Your task to perform on an android device: Find coffee shops on Maps Image 0: 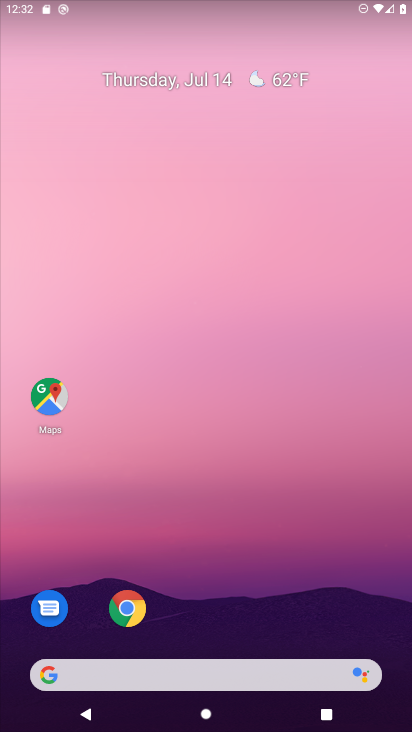
Step 0: drag from (231, 725) to (233, 127)
Your task to perform on an android device: Find coffee shops on Maps Image 1: 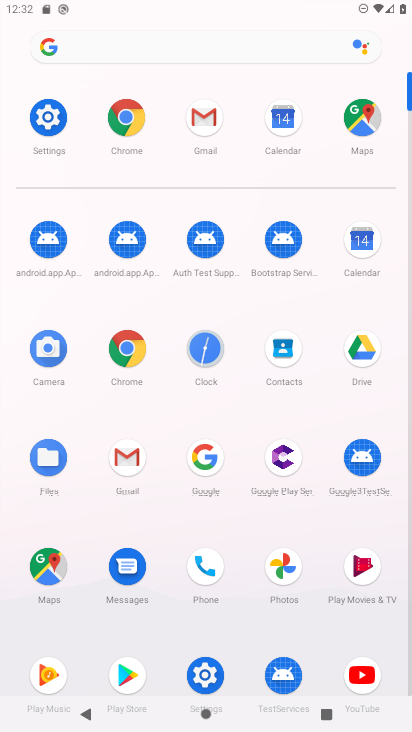
Step 1: click (47, 568)
Your task to perform on an android device: Find coffee shops on Maps Image 2: 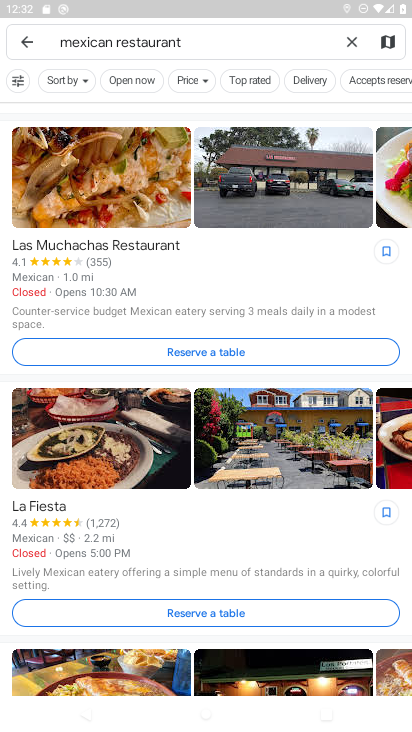
Step 2: click (349, 42)
Your task to perform on an android device: Find coffee shops on Maps Image 3: 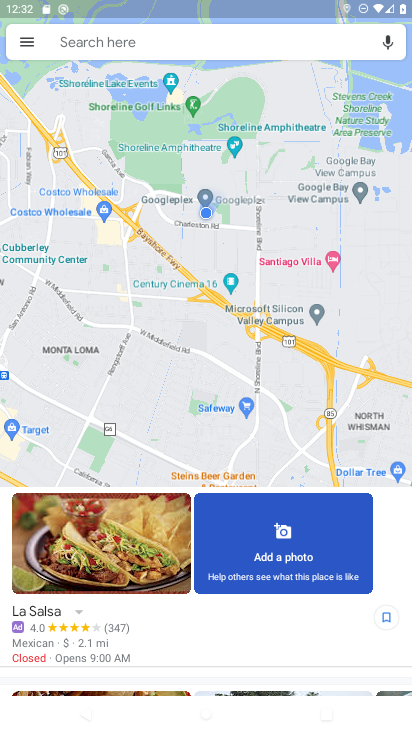
Step 3: click (145, 45)
Your task to perform on an android device: Find coffee shops on Maps Image 4: 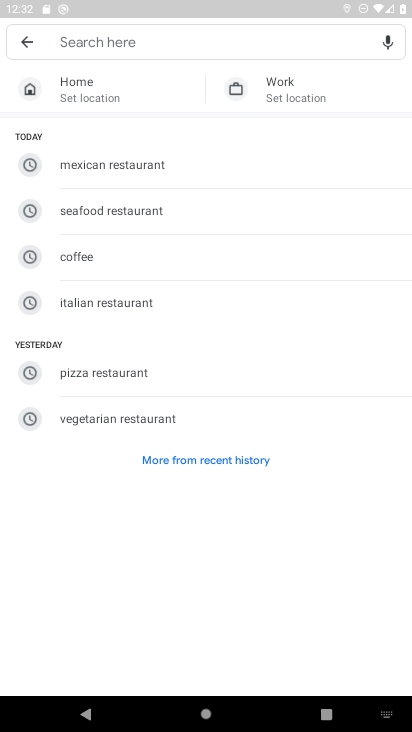
Step 4: type "coffe shops"
Your task to perform on an android device: Find coffee shops on Maps Image 5: 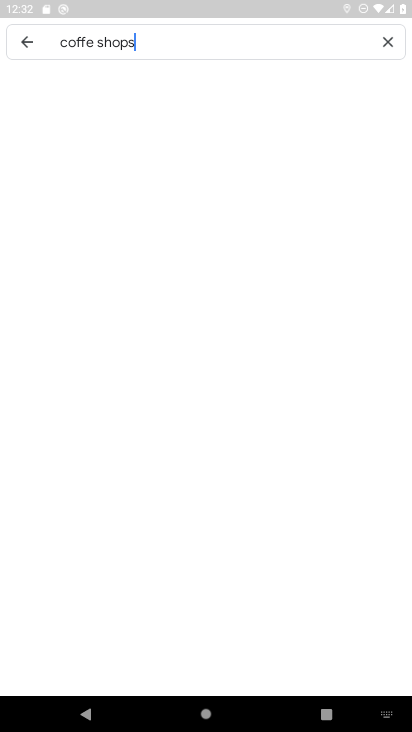
Step 5: type ""
Your task to perform on an android device: Find coffee shops on Maps Image 6: 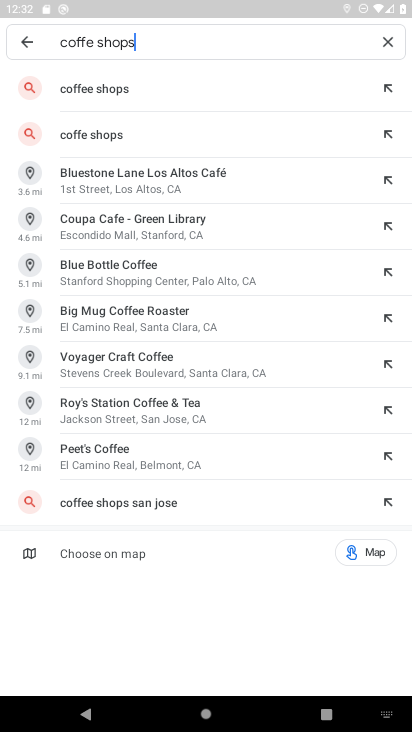
Step 6: click (106, 90)
Your task to perform on an android device: Find coffee shops on Maps Image 7: 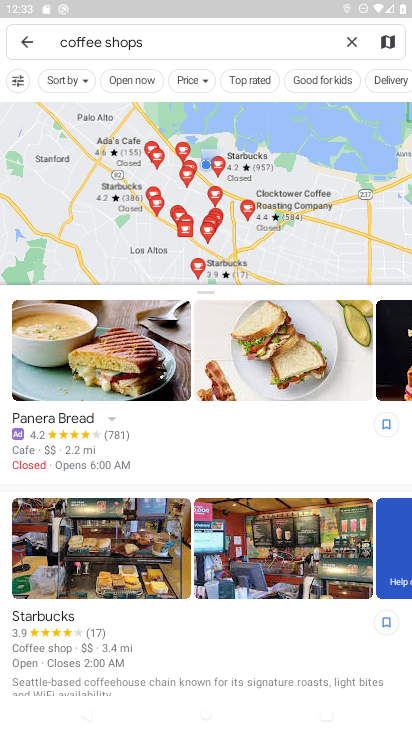
Step 7: task complete